Your task to perform on an android device: toggle priority inbox in the gmail app Image 0: 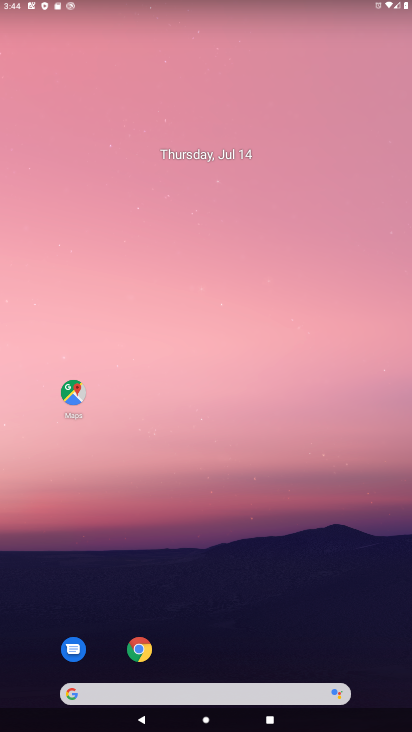
Step 0: drag from (213, 621) to (218, 2)
Your task to perform on an android device: toggle priority inbox in the gmail app Image 1: 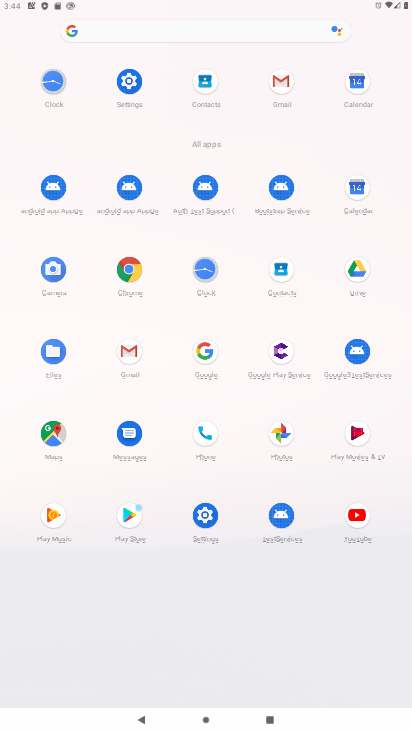
Step 1: click (132, 357)
Your task to perform on an android device: toggle priority inbox in the gmail app Image 2: 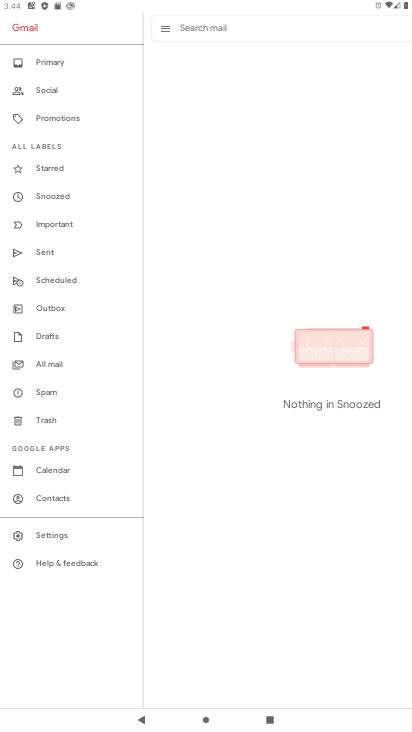
Step 2: click (55, 532)
Your task to perform on an android device: toggle priority inbox in the gmail app Image 3: 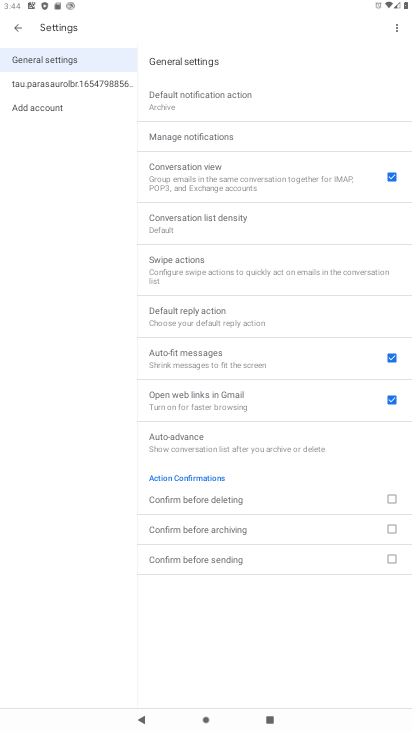
Step 3: click (94, 79)
Your task to perform on an android device: toggle priority inbox in the gmail app Image 4: 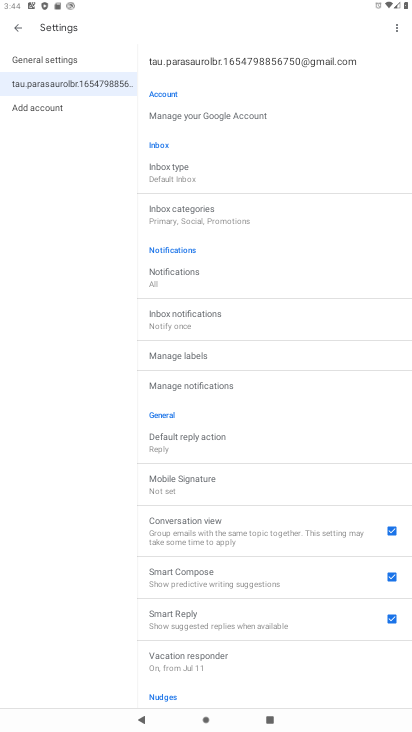
Step 4: click (194, 178)
Your task to perform on an android device: toggle priority inbox in the gmail app Image 5: 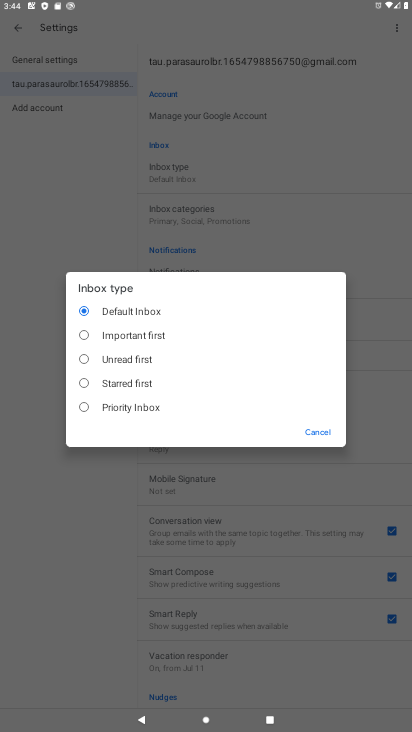
Step 5: click (133, 413)
Your task to perform on an android device: toggle priority inbox in the gmail app Image 6: 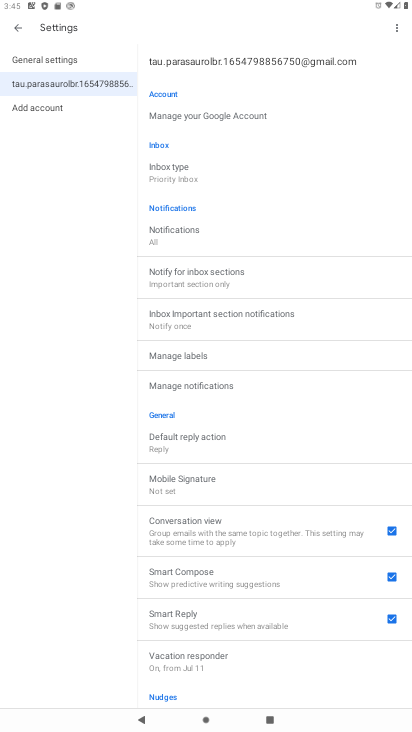
Step 6: task complete